Your task to perform on an android device: Show me productivity apps on the Play Store Image 0: 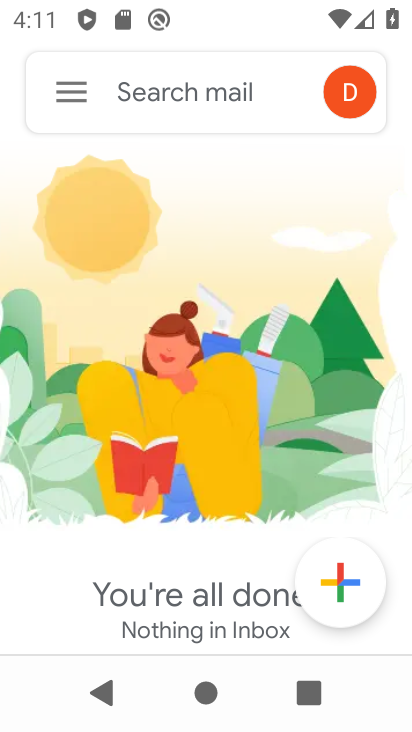
Step 0: press home button
Your task to perform on an android device: Show me productivity apps on the Play Store Image 1: 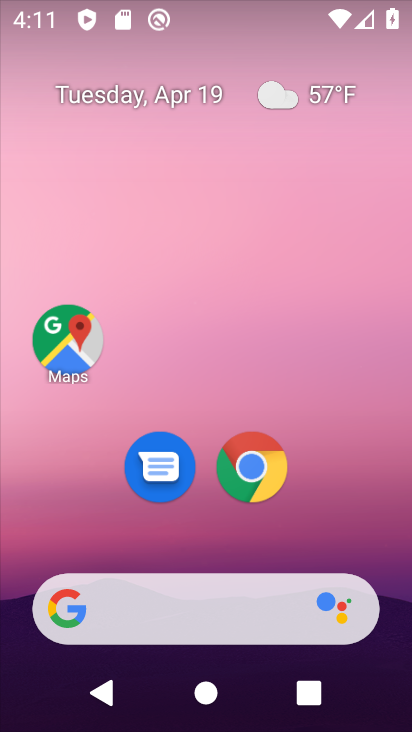
Step 1: drag from (235, 93) to (222, 14)
Your task to perform on an android device: Show me productivity apps on the Play Store Image 2: 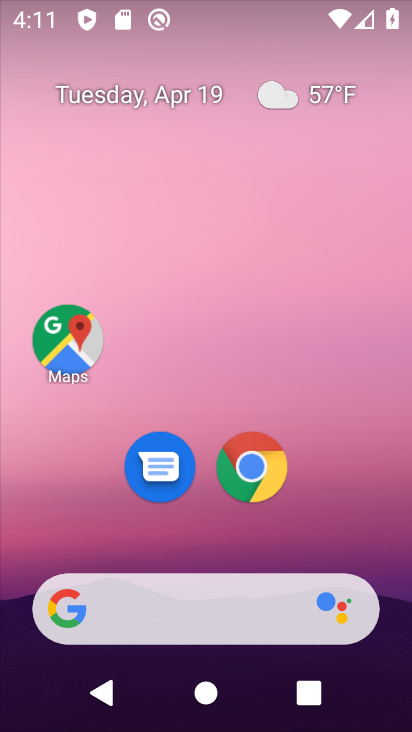
Step 2: drag from (183, 477) to (125, 116)
Your task to perform on an android device: Show me productivity apps on the Play Store Image 3: 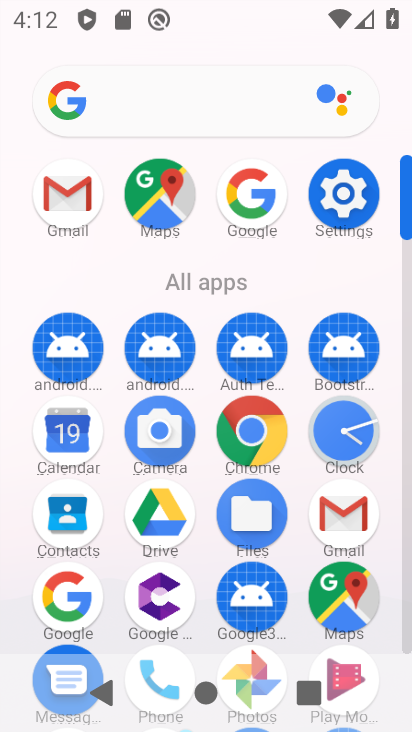
Step 3: drag from (224, 382) to (224, 63)
Your task to perform on an android device: Show me productivity apps on the Play Store Image 4: 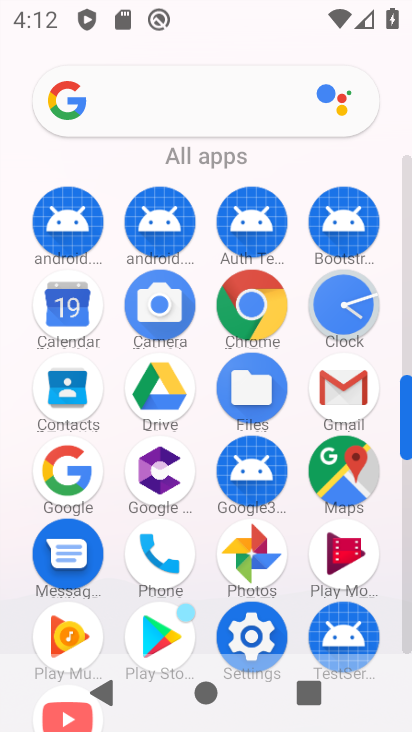
Step 4: click (178, 626)
Your task to perform on an android device: Show me productivity apps on the Play Store Image 5: 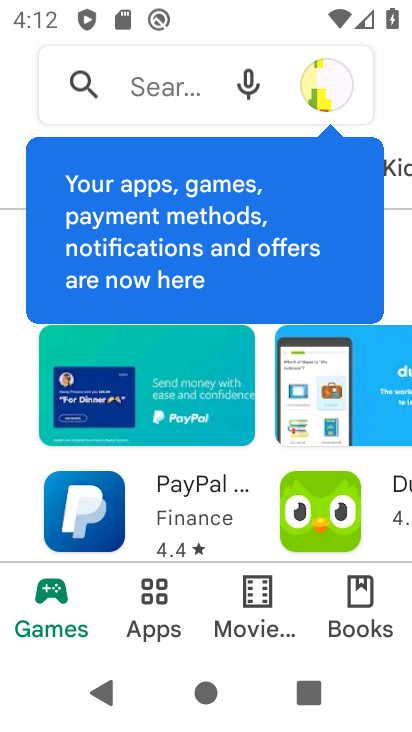
Step 5: click (154, 625)
Your task to perform on an android device: Show me productivity apps on the Play Store Image 6: 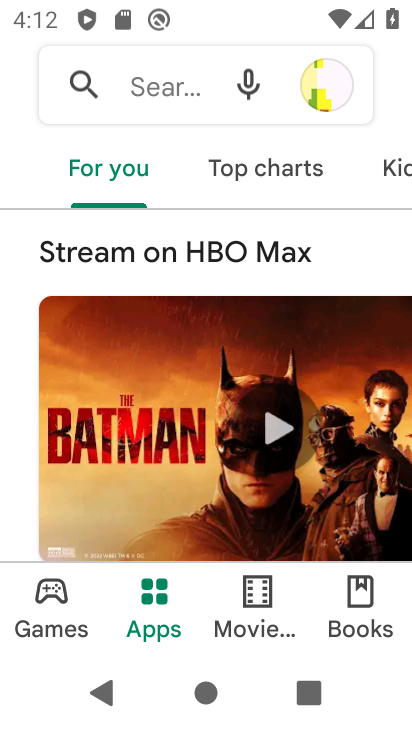
Step 6: click (157, 103)
Your task to perform on an android device: Show me productivity apps on the Play Store Image 7: 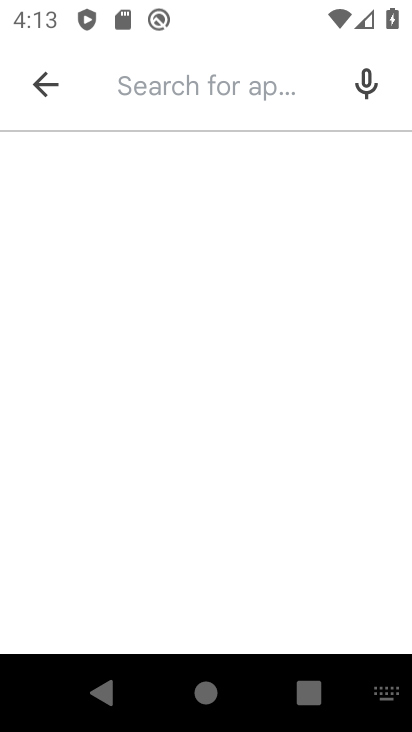
Step 7: type "productivity aaps"
Your task to perform on an android device: Show me productivity apps on the Play Store Image 8: 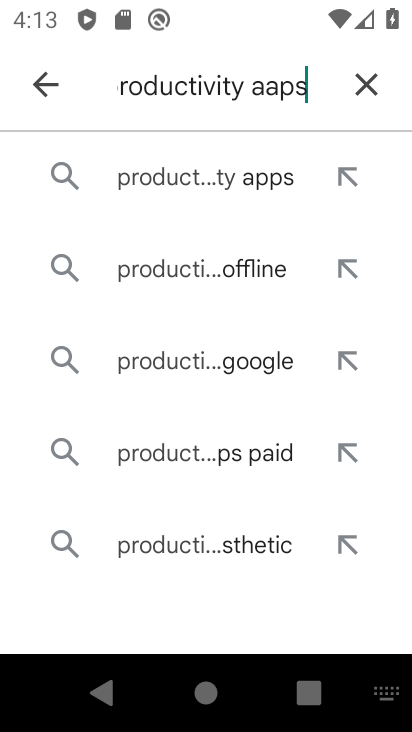
Step 8: click (197, 174)
Your task to perform on an android device: Show me productivity apps on the Play Store Image 9: 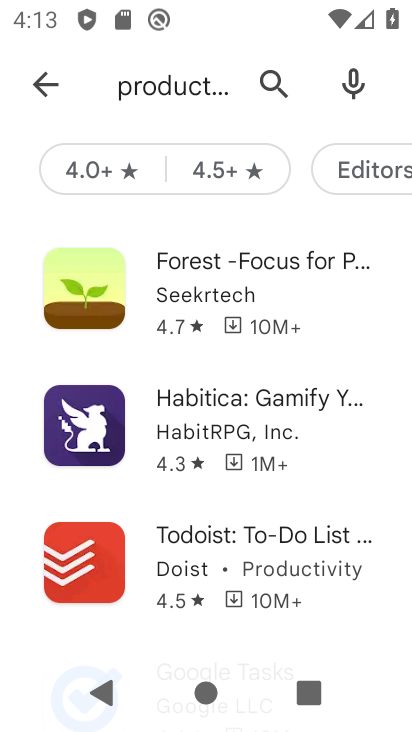
Step 9: task complete